Your task to perform on an android device: empty trash in the gmail app Image 0: 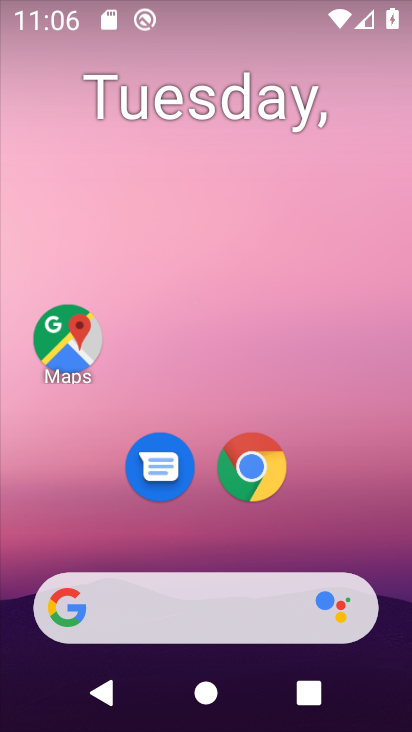
Step 0: drag from (202, 564) to (285, 166)
Your task to perform on an android device: empty trash in the gmail app Image 1: 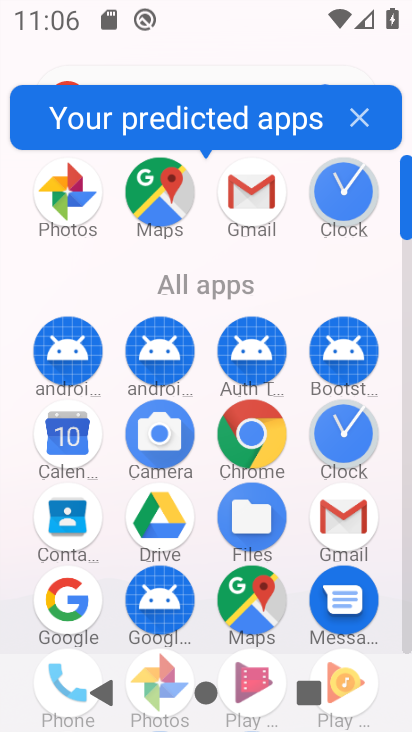
Step 1: click (353, 512)
Your task to perform on an android device: empty trash in the gmail app Image 2: 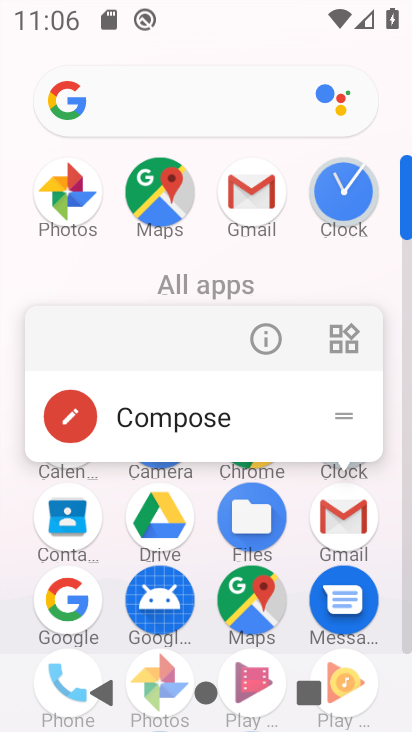
Step 2: click (351, 514)
Your task to perform on an android device: empty trash in the gmail app Image 3: 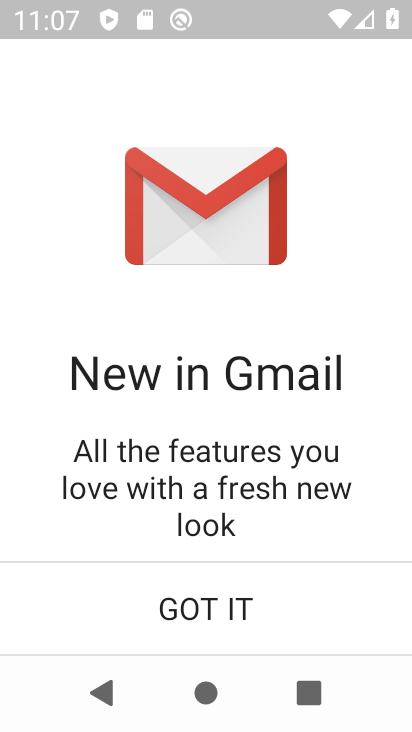
Step 3: click (274, 582)
Your task to perform on an android device: empty trash in the gmail app Image 4: 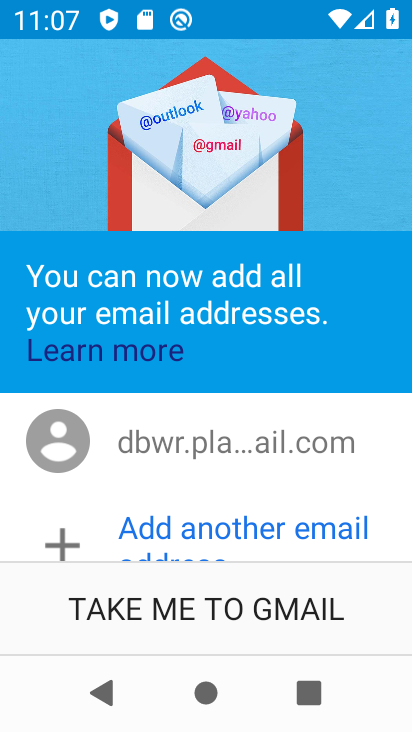
Step 4: click (217, 593)
Your task to perform on an android device: empty trash in the gmail app Image 5: 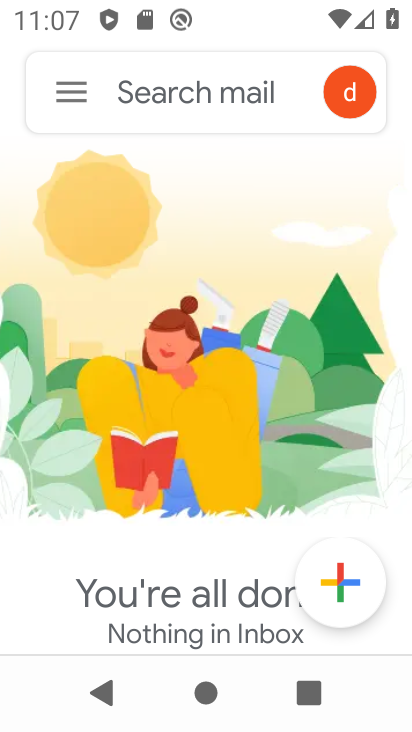
Step 5: click (81, 104)
Your task to perform on an android device: empty trash in the gmail app Image 6: 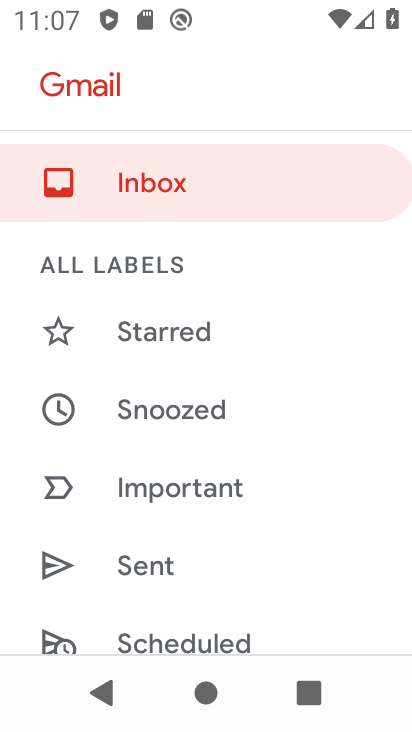
Step 6: drag from (188, 547) to (247, 276)
Your task to perform on an android device: empty trash in the gmail app Image 7: 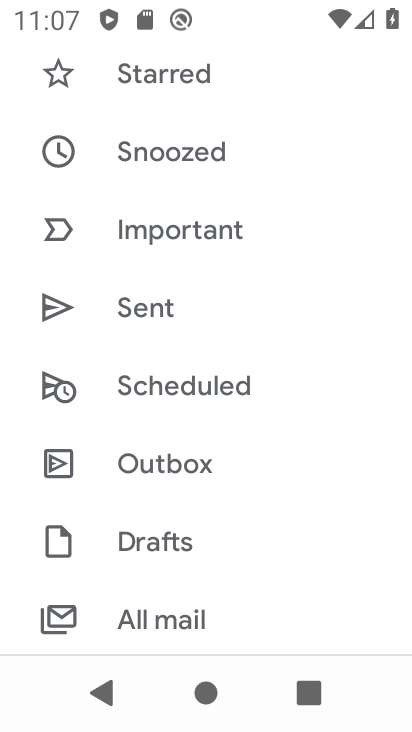
Step 7: drag from (205, 604) to (251, 330)
Your task to perform on an android device: empty trash in the gmail app Image 8: 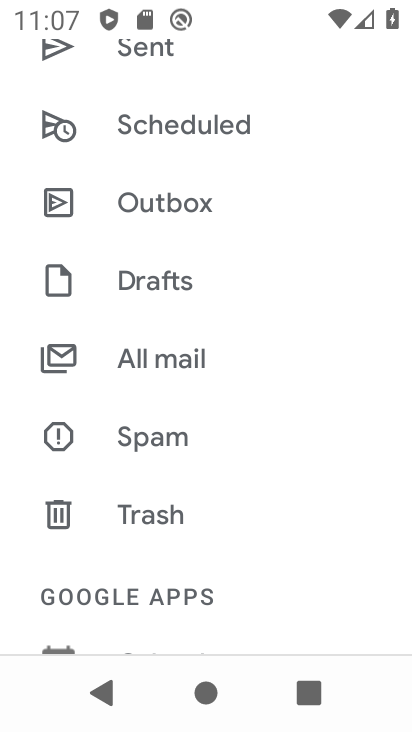
Step 8: click (196, 517)
Your task to perform on an android device: empty trash in the gmail app Image 9: 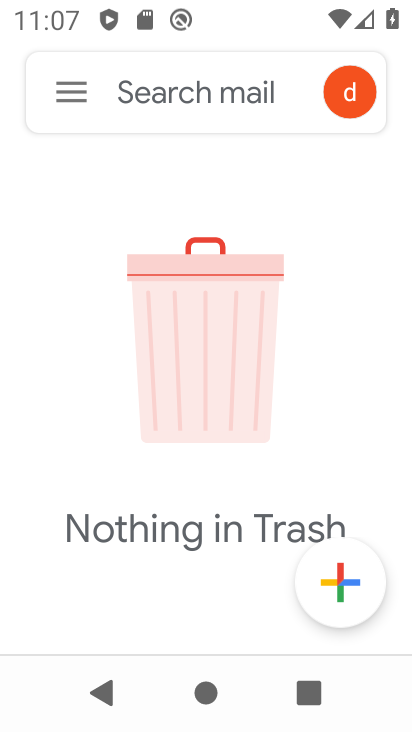
Step 9: task complete